Your task to perform on an android device: Open Youtube and go to the subscriptions tab Image 0: 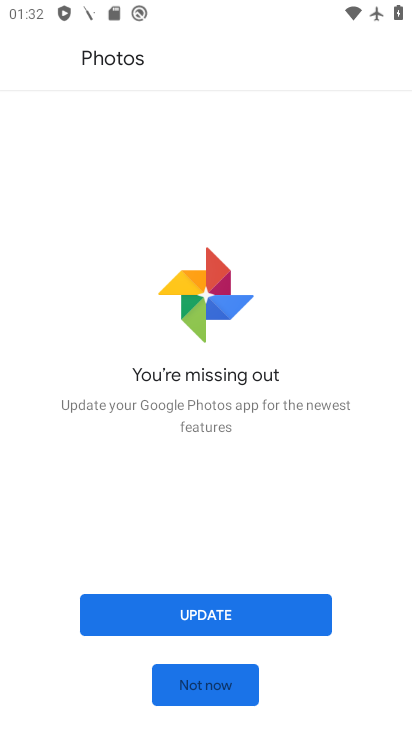
Step 0: press back button
Your task to perform on an android device: Open Youtube and go to the subscriptions tab Image 1: 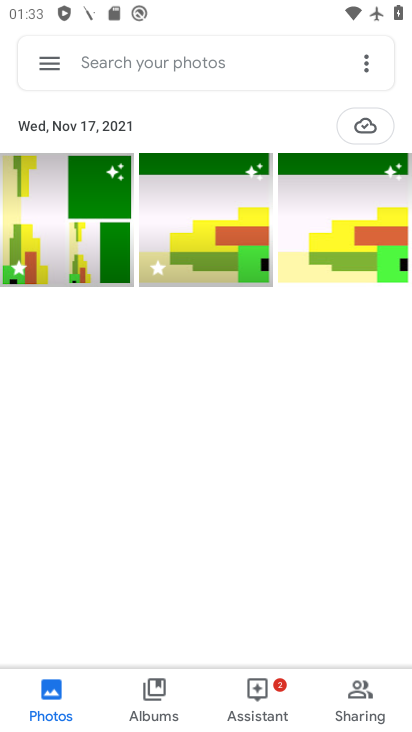
Step 1: press home button
Your task to perform on an android device: Open Youtube and go to the subscriptions tab Image 2: 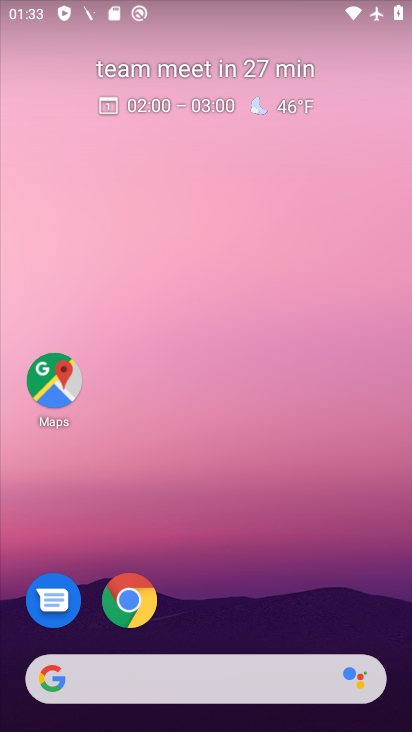
Step 2: drag from (229, 633) to (168, 16)
Your task to perform on an android device: Open Youtube and go to the subscriptions tab Image 3: 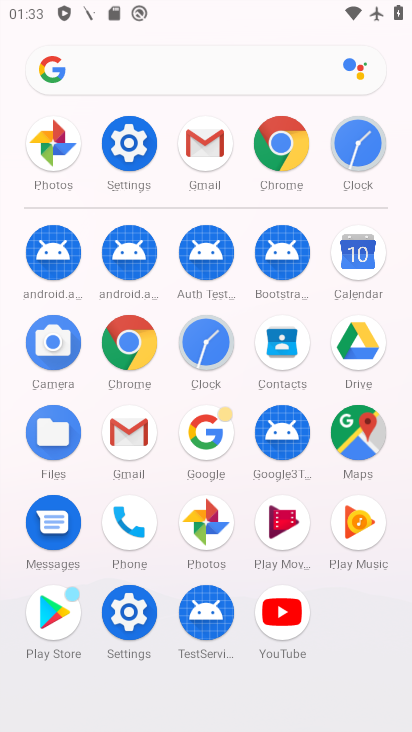
Step 3: click (300, 619)
Your task to perform on an android device: Open Youtube and go to the subscriptions tab Image 4: 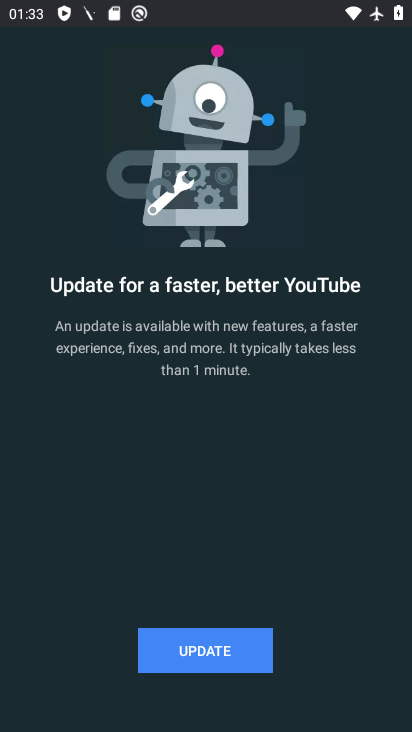
Step 4: click (237, 630)
Your task to perform on an android device: Open Youtube and go to the subscriptions tab Image 5: 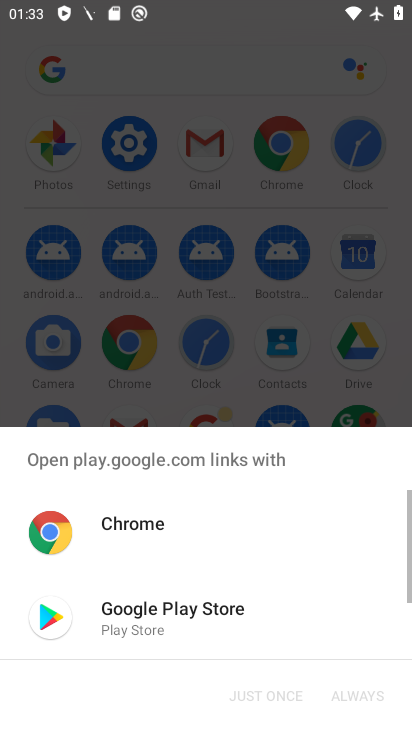
Step 5: click (136, 620)
Your task to perform on an android device: Open Youtube and go to the subscriptions tab Image 6: 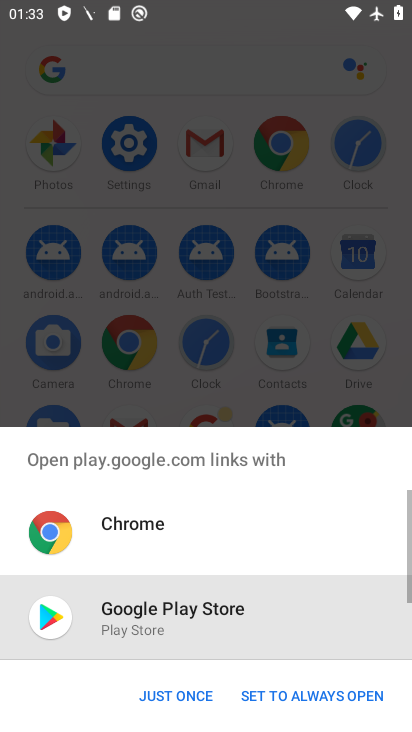
Step 6: drag from (198, 695) to (299, 695)
Your task to perform on an android device: Open Youtube and go to the subscriptions tab Image 7: 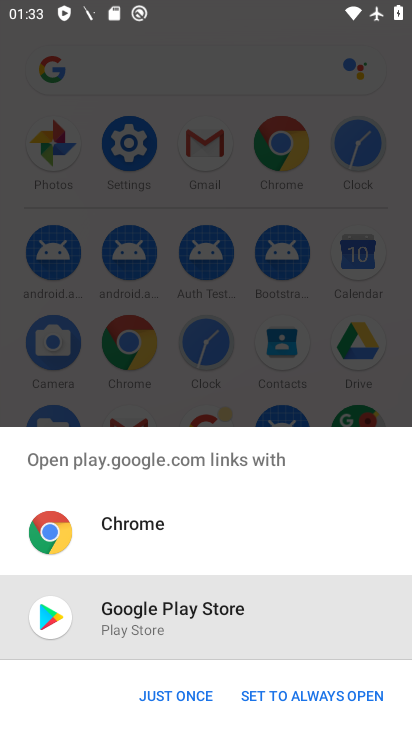
Step 7: click (181, 693)
Your task to perform on an android device: Open Youtube and go to the subscriptions tab Image 8: 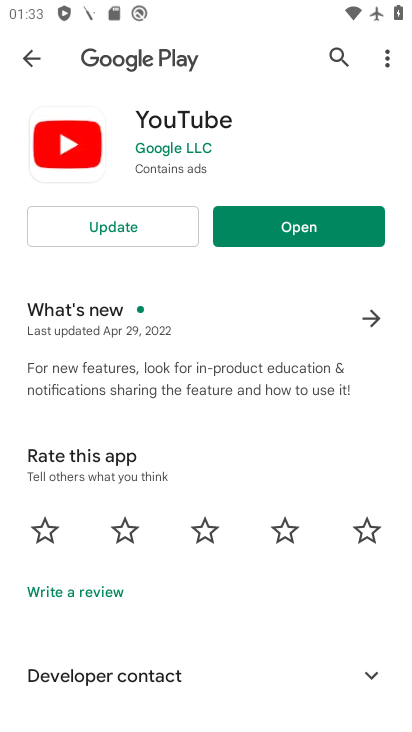
Step 8: click (165, 223)
Your task to perform on an android device: Open Youtube and go to the subscriptions tab Image 9: 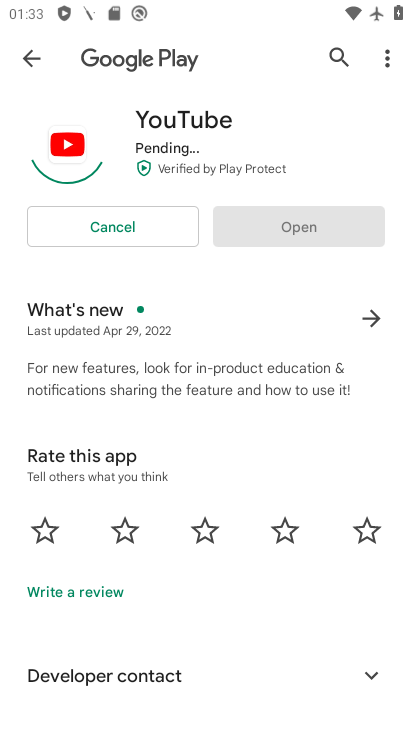
Step 9: task complete